Your task to perform on an android device: View the shopping cart on target.com. Add "logitech g910" to the cart on target.com, then select checkout. Image 0: 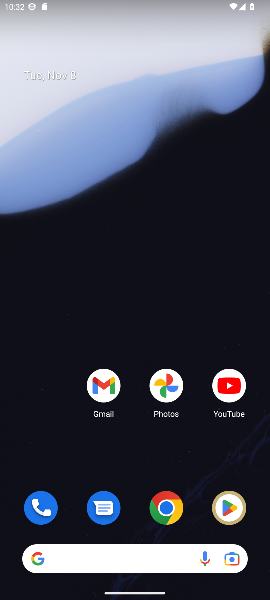
Step 0: click (174, 502)
Your task to perform on an android device: View the shopping cart on target.com. Add "logitech g910" to the cart on target.com, then select checkout. Image 1: 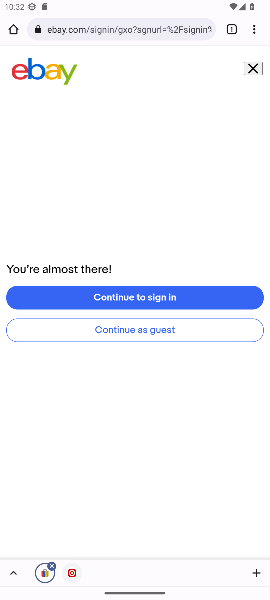
Step 1: click (92, 27)
Your task to perform on an android device: View the shopping cart on target.com. Add "logitech g910" to the cart on target.com, then select checkout. Image 2: 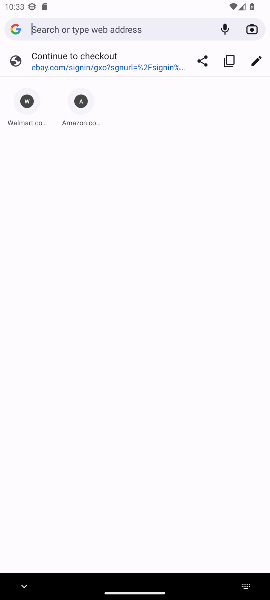
Step 2: type "target"
Your task to perform on an android device: View the shopping cart on target.com. Add "logitech g910" to the cart on target.com, then select checkout. Image 3: 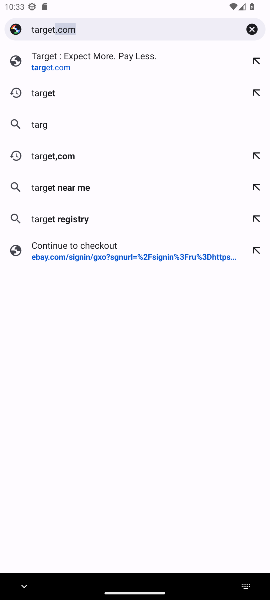
Step 3: type ""
Your task to perform on an android device: View the shopping cart on target.com. Add "logitech g910" to the cart on target.com, then select checkout. Image 4: 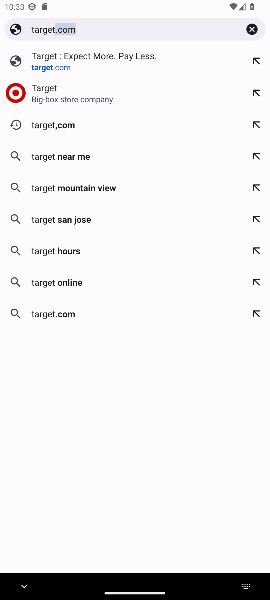
Step 4: click (44, 95)
Your task to perform on an android device: View the shopping cart on target.com. Add "logitech g910" to the cart on target.com, then select checkout. Image 5: 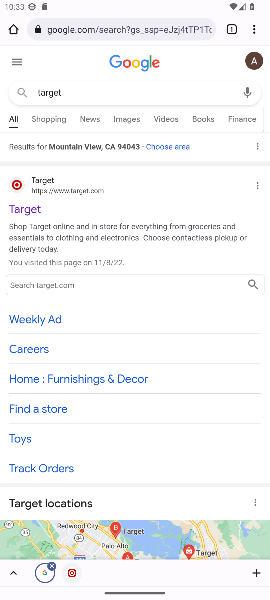
Step 5: click (25, 206)
Your task to perform on an android device: View the shopping cart on target.com. Add "logitech g910" to the cart on target.com, then select checkout. Image 6: 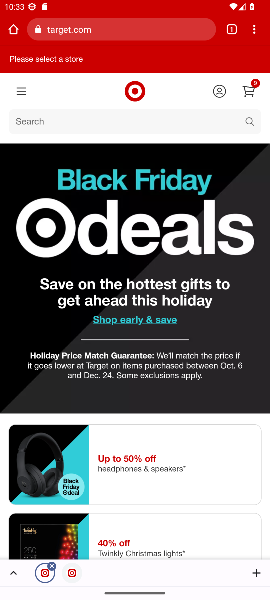
Step 6: drag from (141, 344) to (163, 391)
Your task to perform on an android device: View the shopping cart on target.com. Add "logitech g910" to the cart on target.com, then select checkout. Image 7: 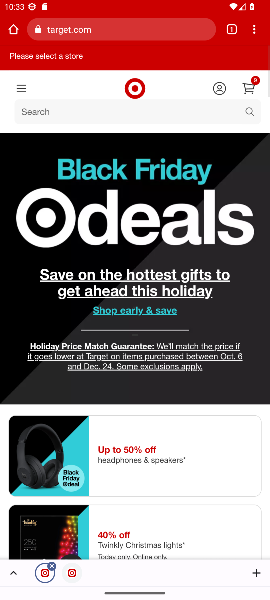
Step 7: click (116, 117)
Your task to perform on an android device: View the shopping cart on target.com. Add "logitech g910" to the cart on target.com, then select checkout. Image 8: 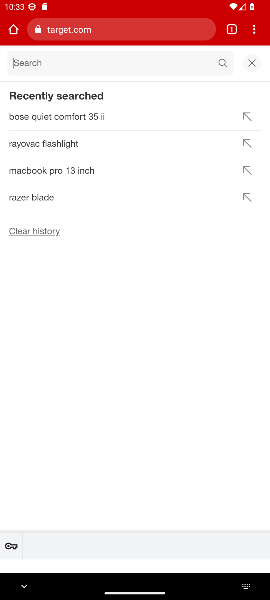
Step 8: click (219, 63)
Your task to perform on an android device: View the shopping cart on target.com. Add "logitech g910" to the cart on target.com, then select checkout. Image 9: 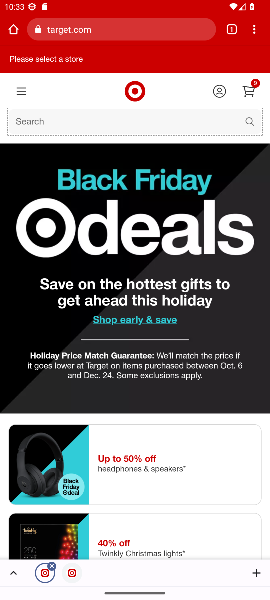
Step 9: click (211, 123)
Your task to perform on an android device: View the shopping cart on target.com. Add "logitech g910" to the cart on target.com, then select checkout. Image 10: 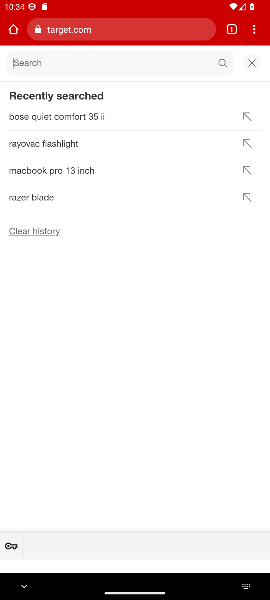
Step 10: type "logitech g910"
Your task to perform on an android device: View the shopping cart on target.com. Add "logitech g910" to the cart on target.com, then select checkout. Image 11: 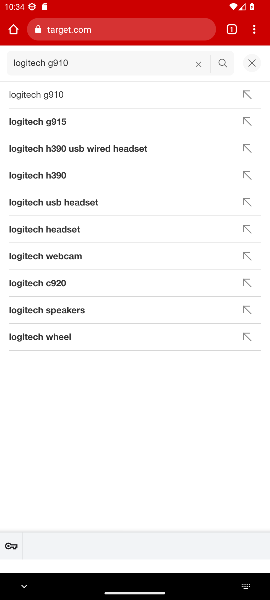
Step 11: click (43, 93)
Your task to perform on an android device: View the shopping cart on target.com. Add "logitech g910" to the cart on target.com, then select checkout. Image 12: 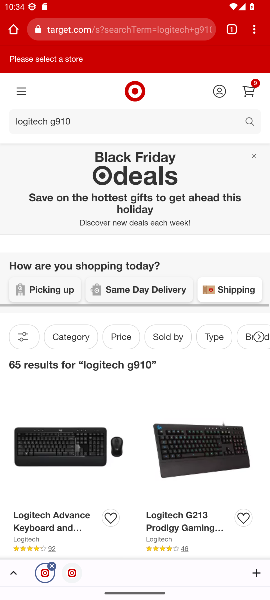
Step 12: click (44, 456)
Your task to perform on an android device: View the shopping cart on target.com. Add "logitech g910" to the cart on target.com, then select checkout. Image 13: 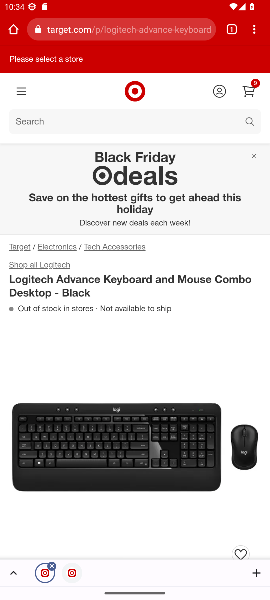
Step 13: drag from (68, 452) to (106, 188)
Your task to perform on an android device: View the shopping cart on target.com. Add "logitech g910" to the cart on target.com, then select checkout. Image 14: 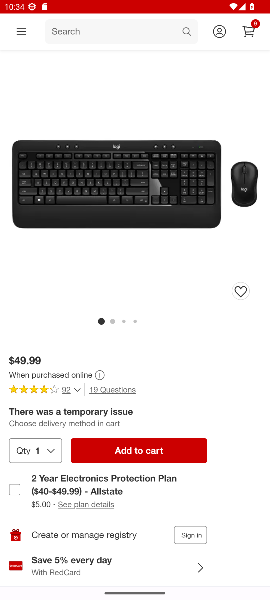
Step 14: click (128, 454)
Your task to perform on an android device: View the shopping cart on target.com. Add "logitech g910" to the cart on target.com, then select checkout. Image 15: 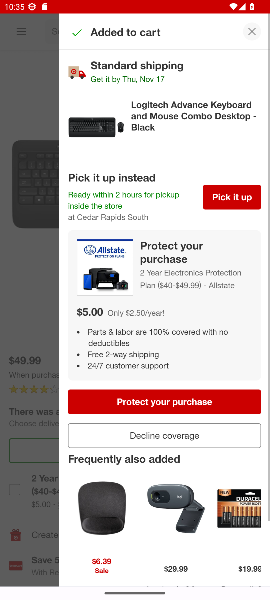
Step 15: click (196, 401)
Your task to perform on an android device: View the shopping cart on target.com. Add "logitech g910" to the cart on target.com, then select checkout. Image 16: 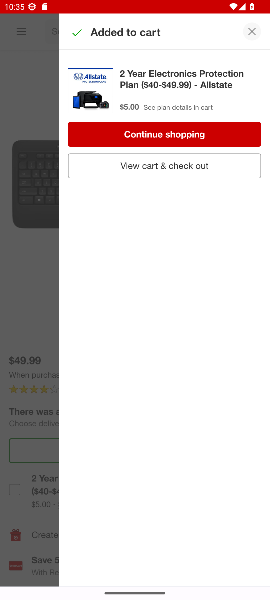
Step 16: click (150, 165)
Your task to perform on an android device: View the shopping cart on target.com. Add "logitech g910" to the cart on target.com, then select checkout. Image 17: 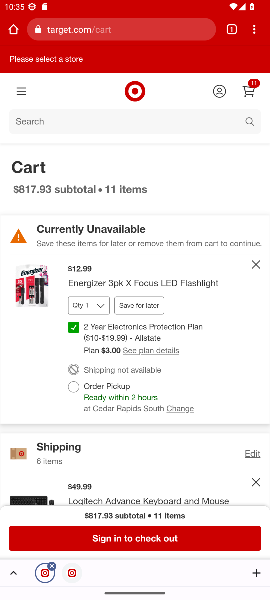
Step 17: click (144, 537)
Your task to perform on an android device: View the shopping cart on target.com. Add "logitech g910" to the cart on target.com, then select checkout. Image 18: 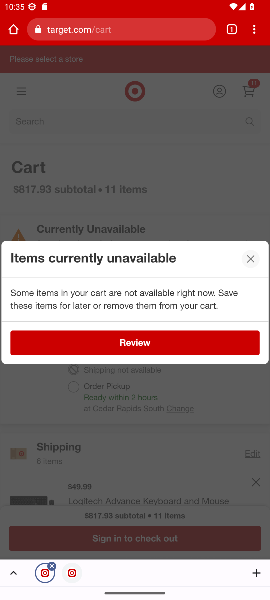
Step 18: click (250, 259)
Your task to perform on an android device: View the shopping cart on target.com. Add "logitech g910" to the cart on target.com, then select checkout. Image 19: 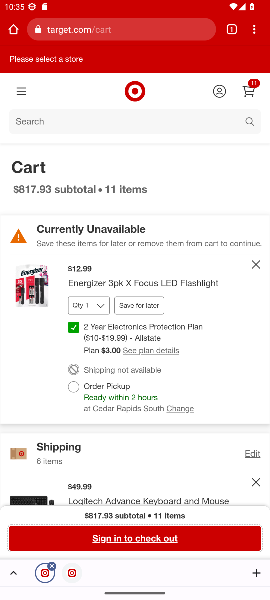
Step 19: click (147, 543)
Your task to perform on an android device: View the shopping cart on target.com. Add "logitech g910" to the cart on target.com, then select checkout. Image 20: 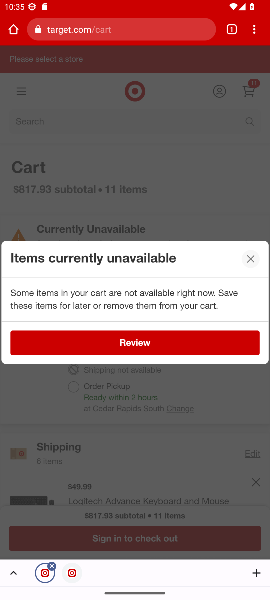
Step 20: click (248, 261)
Your task to perform on an android device: View the shopping cart on target.com. Add "logitech g910" to the cart on target.com, then select checkout. Image 21: 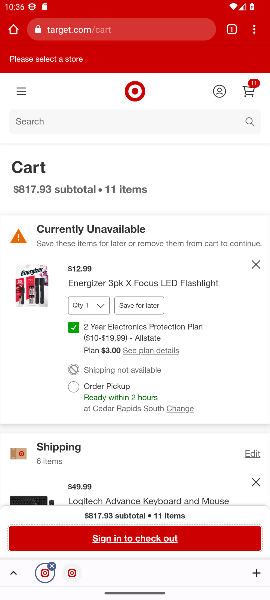
Step 21: click (144, 536)
Your task to perform on an android device: View the shopping cart on target.com. Add "logitech g910" to the cart on target.com, then select checkout. Image 22: 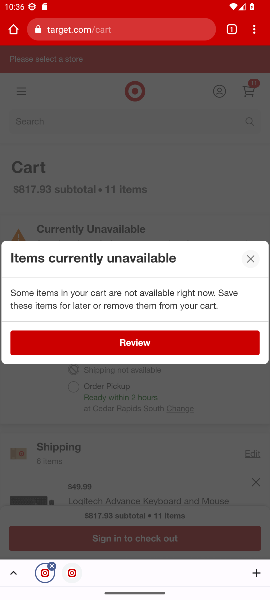
Step 22: task complete